Your task to perform on an android device: Go to accessibility settings Image 0: 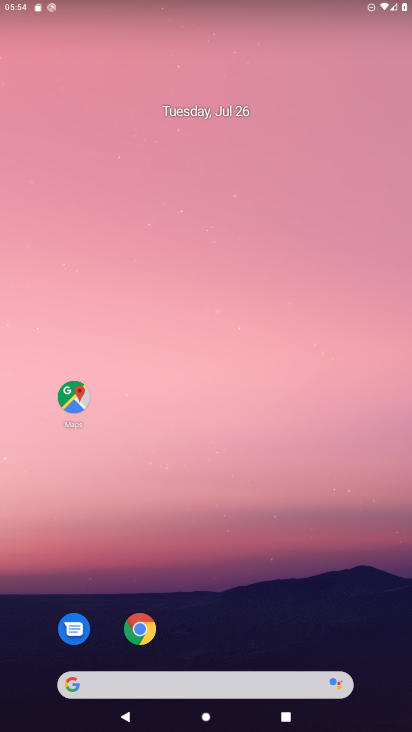
Step 0: drag from (180, 642) to (194, 274)
Your task to perform on an android device: Go to accessibility settings Image 1: 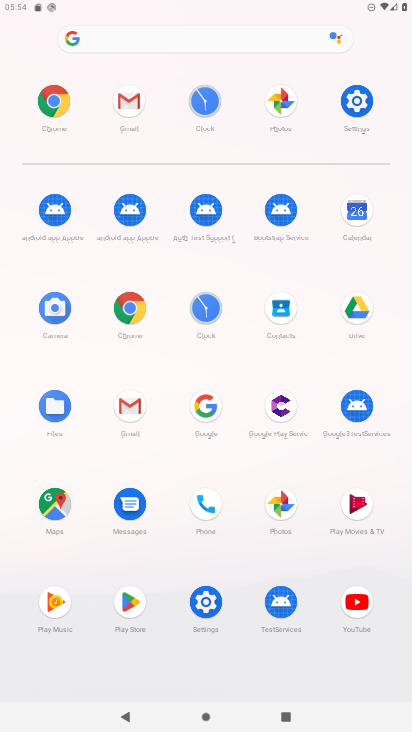
Step 1: click (361, 95)
Your task to perform on an android device: Go to accessibility settings Image 2: 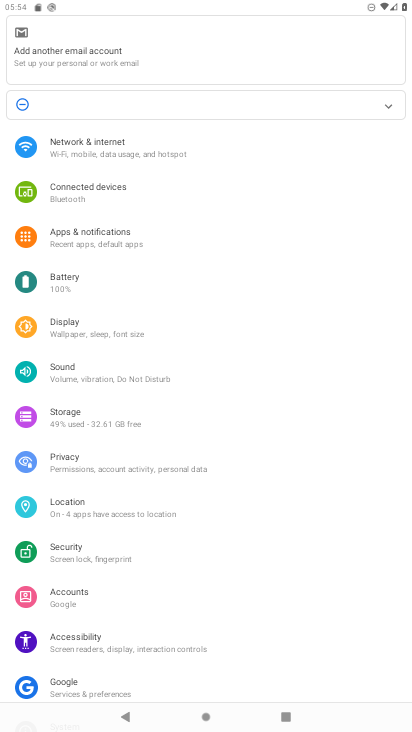
Step 2: click (60, 645)
Your task to perform on an android device: Go to accessibility settings Image 3: 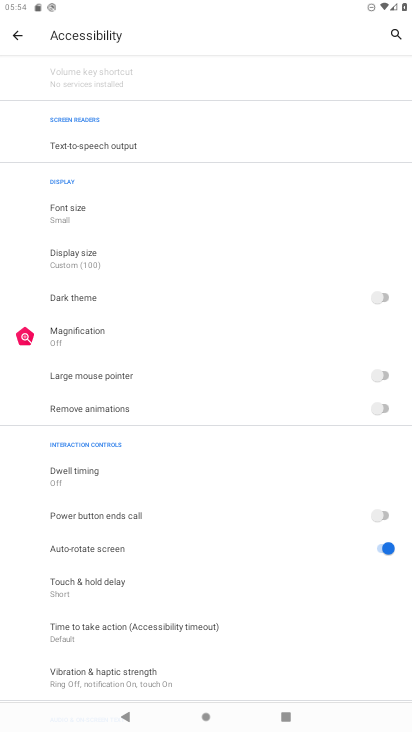
Step 3: task complete